Your task to perform on an android device: Do I have any events today? Image 0: 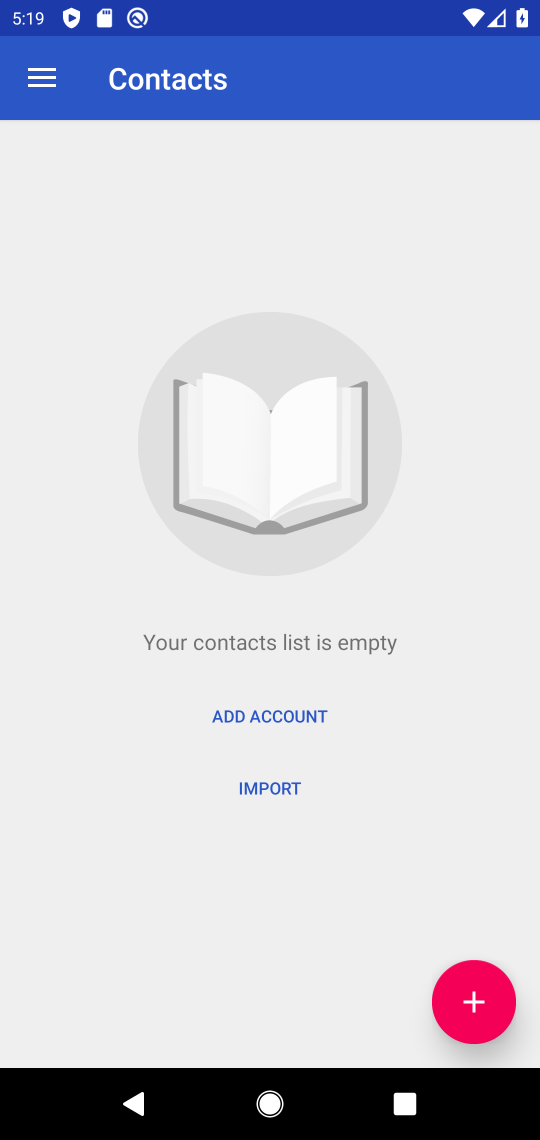
Step 0: press back button
Your task to perform on an android device: Do I have any events today? Image 1: 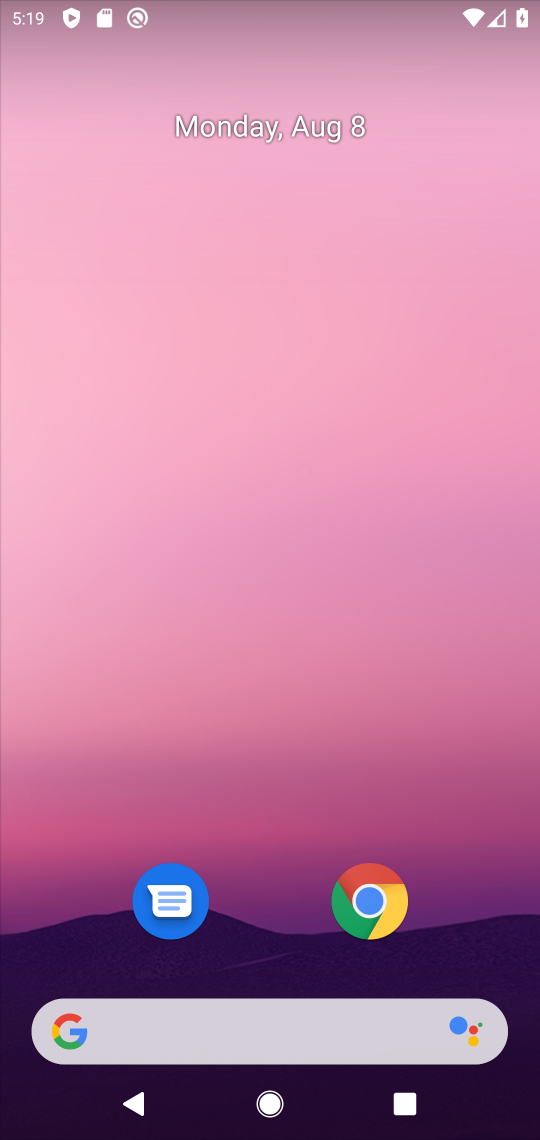
Step 1: drag from (462, 971) to (336, 117)
Your task to perform on an android device: Do I have any events today? Image 2: 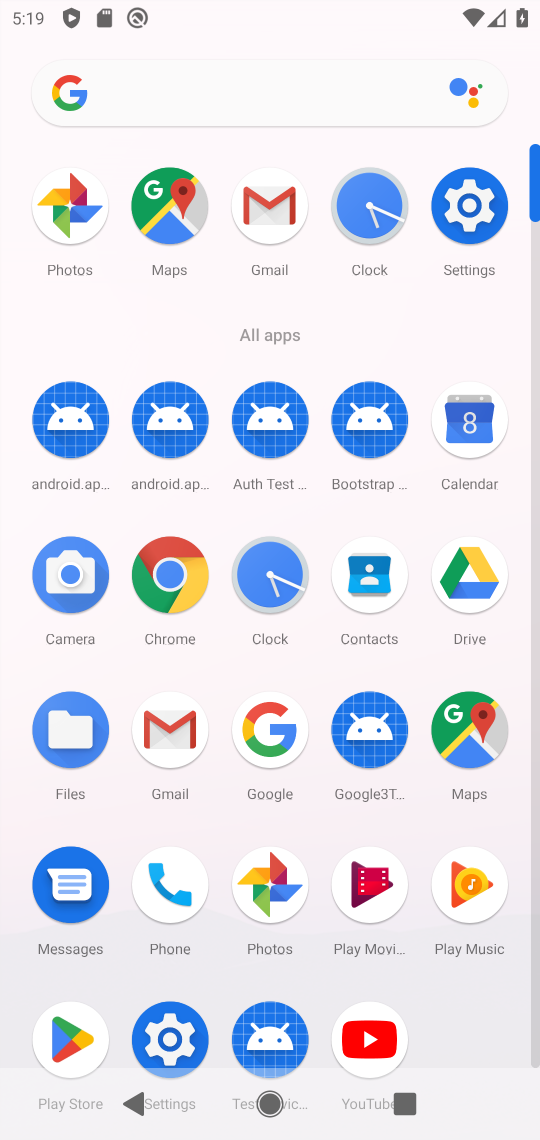
Step 2: click (491, 432)
Your task to perform on an android device: Do I have any events today? Image 3: 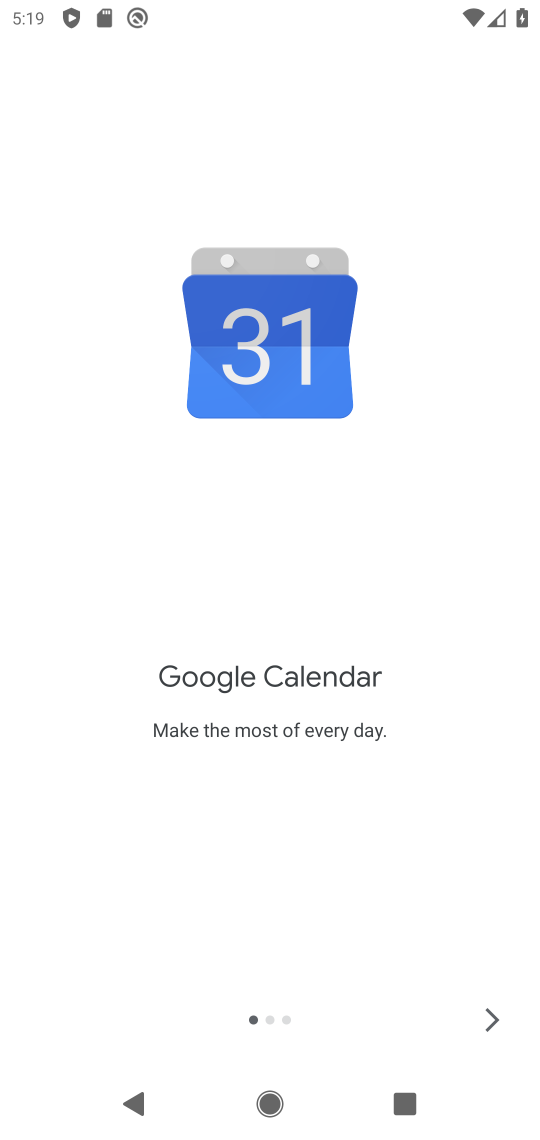
Step 3: click (499, 1004)
Your task to perform on an android device: Do I have any events today? Image 4: 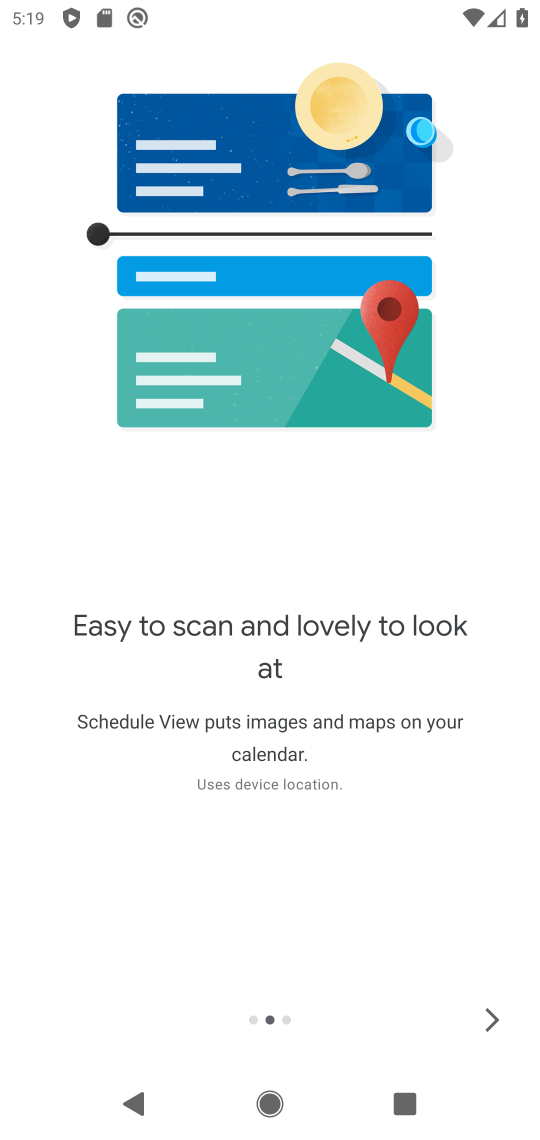
Step 4: click (492, 1010)
Your task to perform on an android device: Do I have any events today? Image 5: 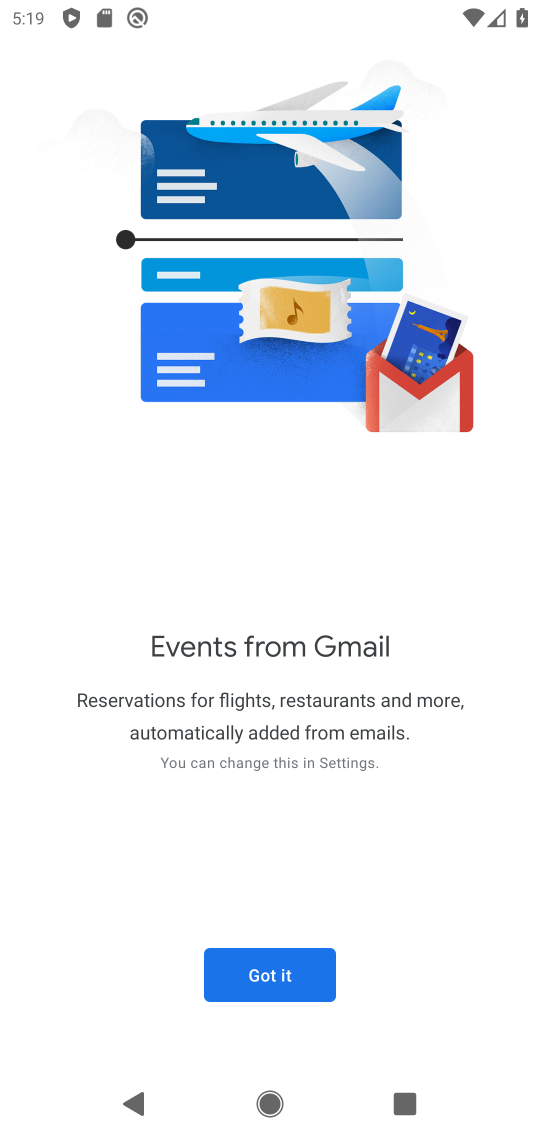
Step 5: click (233, 980)
Your task to perform on an android device: Do I have any events today? Image 6: 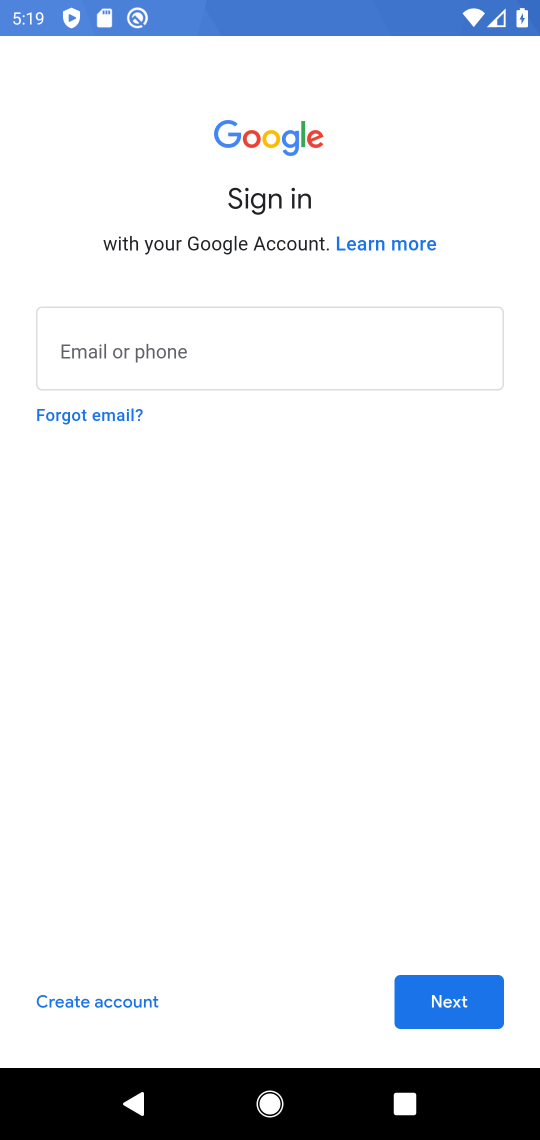
Step 6: task complete